Your task to perform on an android device: turn pop-ups off in chrome Image 0: 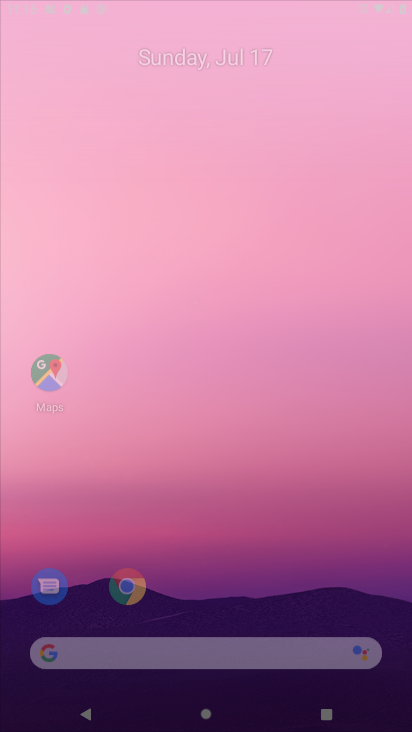
Step 0: drag from (219, 624) to (202, 13)
Your task to perform on an android device: turn pop-ups off in chrome Image 1: 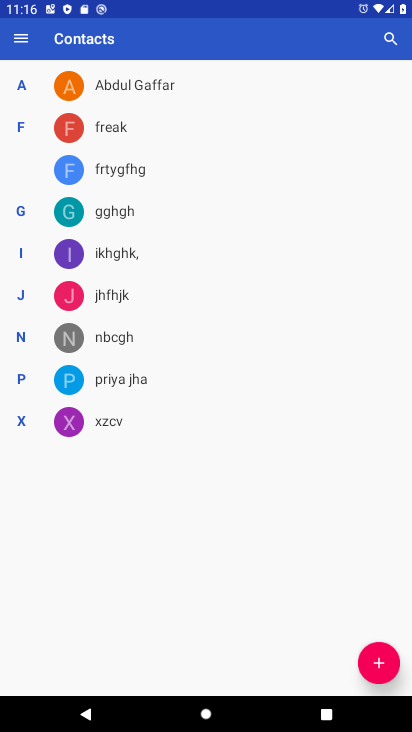
Step 1: press home button
Your task to perform on an android device: turn pop-ups off in chrome Image 2: 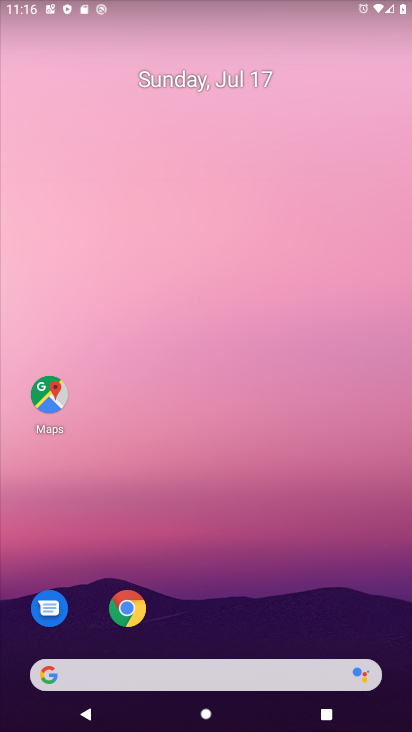
Step 2: click (137, 610)
Your task to perform on an android device: turn pop-ups off in chrome Image 3: 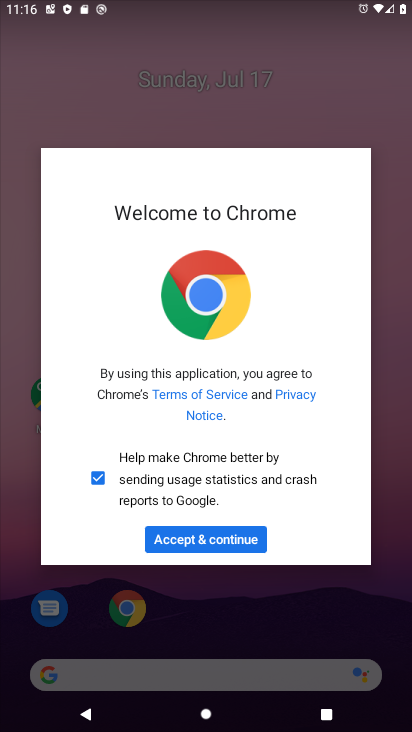
Step 3: click (204, 541)
Your task to perform on an android device: turn pop-ups off in chrome Image 4: 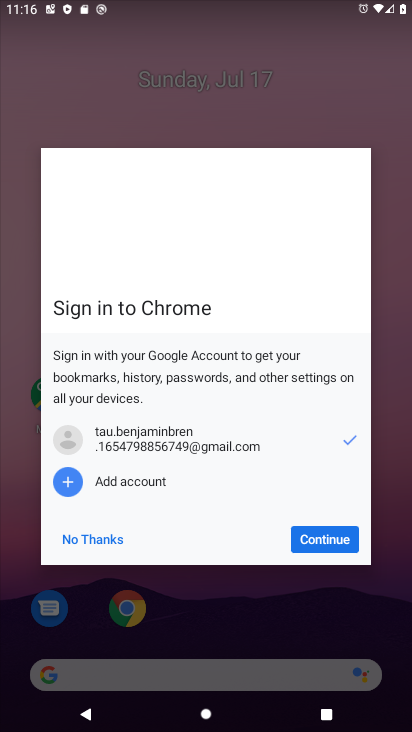
Step 4: click (324, 528)
Your task to perform on an android device: turn pop-ups off in chrome Image 5: 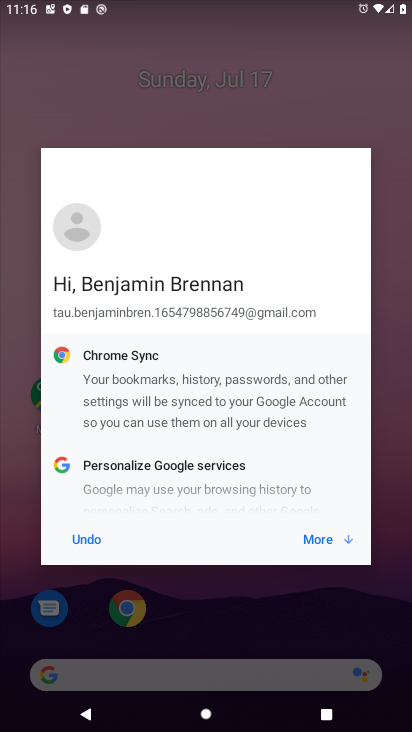
Step 5: click (324, 528)
Your task to perform on an android device: turn pop-ups off in chrome Image 6: 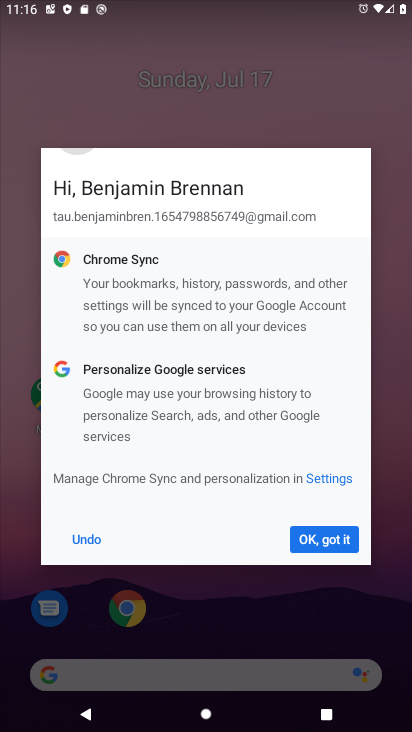
Step 6: click (341, 540)
Your task to perform on an android device: turn pop-ups off in chrome Image 7: 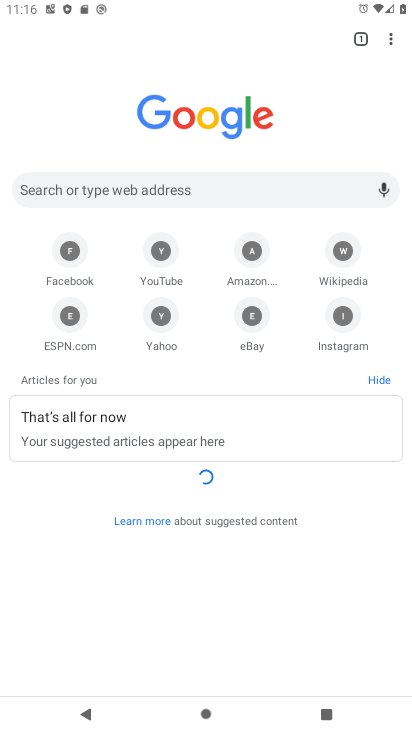
Step 7: drag from (390, 43) to (245, 325)
Your task to perform on an android device: turn pop-ups off in chrome Image 8: 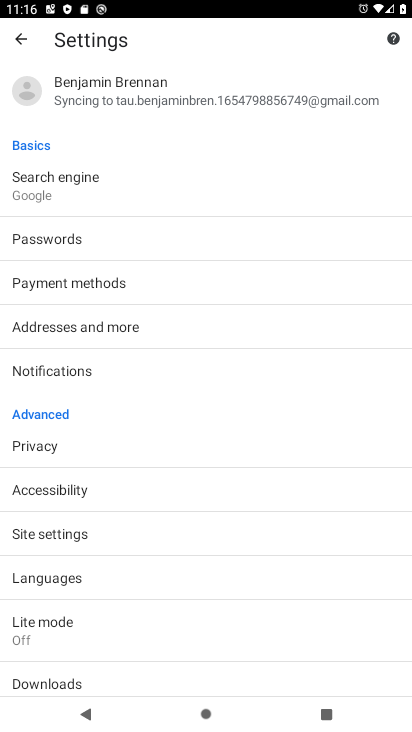
Step 8: click (47, 537)
Your task to perform on an android device: turn pop-ups off in chrome Image 9: 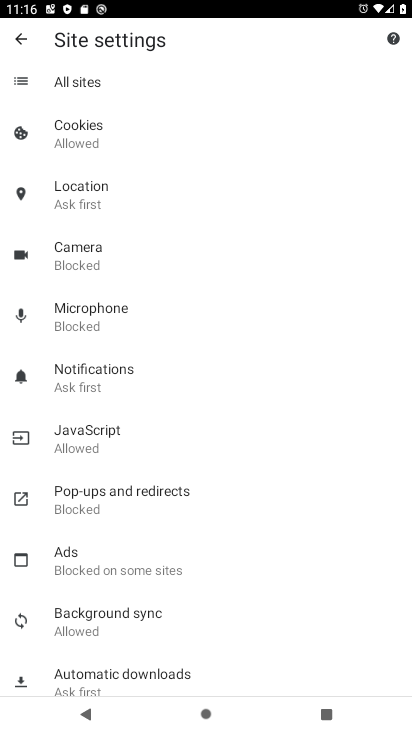
Step 9: click (90, 493)
Your task to perform on an android device: turn pop-ups off in chrome Image 10: 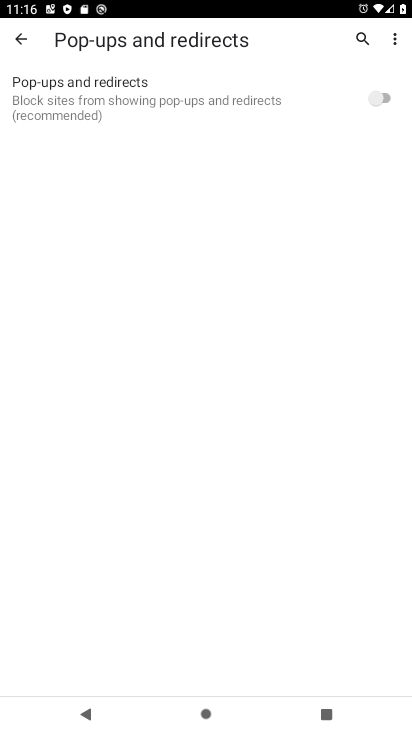
Step 10: task complete